Your task to perform on an android device: Go to Yahoo.com Image 0: 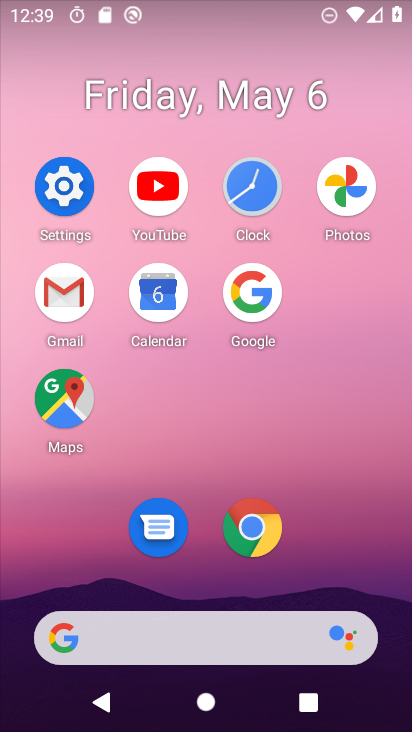
Step 0: click (265, 530)
Your task to perform on an android device: Go to Yahoo.com Image 1: 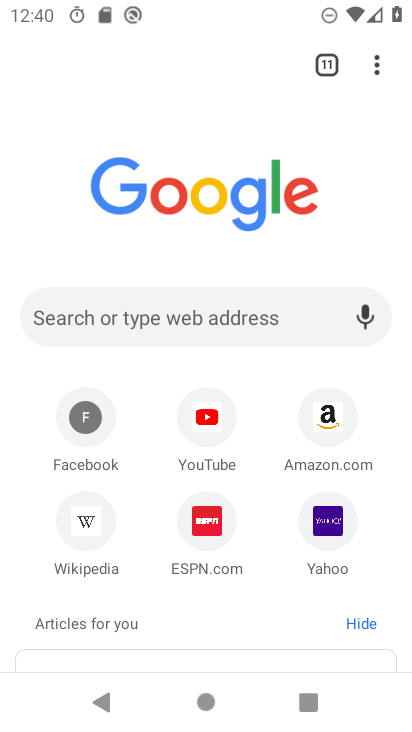
Step 1: click (318, 520)
Your task to perform on an android device: Go to Yahoo.com Image 2: 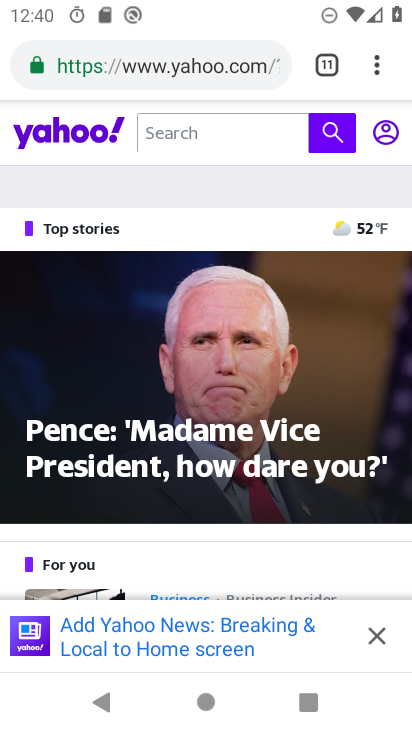
Step 2: task complete